Your task to perform on an android device: visit the assistant section in the google photos Image 0: 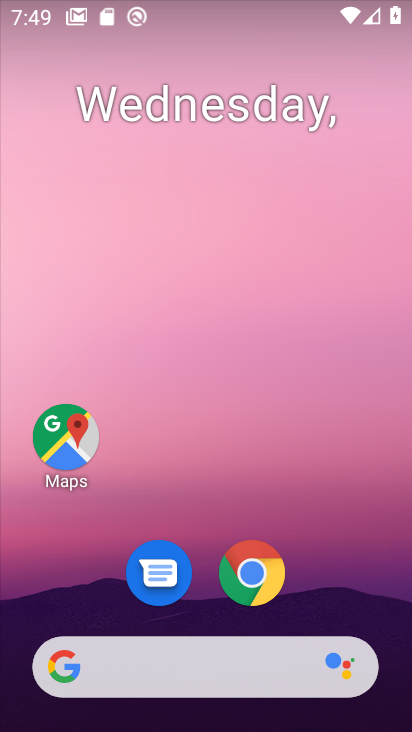
Step 0: drag from (334, 518) to (355, 0)
Your task to perform on an android device: visit the assistant section in the google photos Image 1: 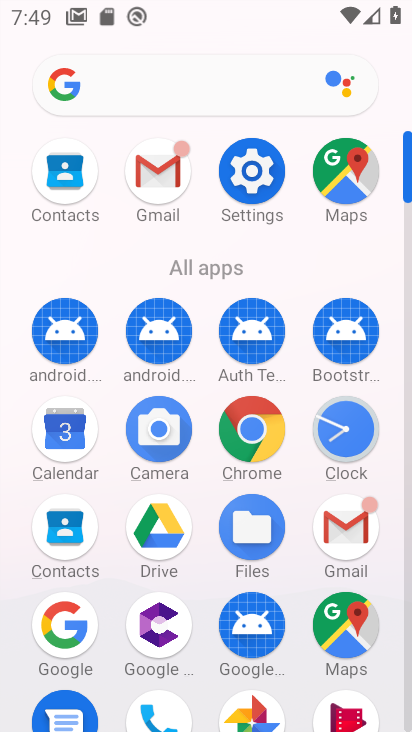
Step 1: click (406, 490)
Your task to perform on an android device: visit the assistant section in the google photos Image 2: 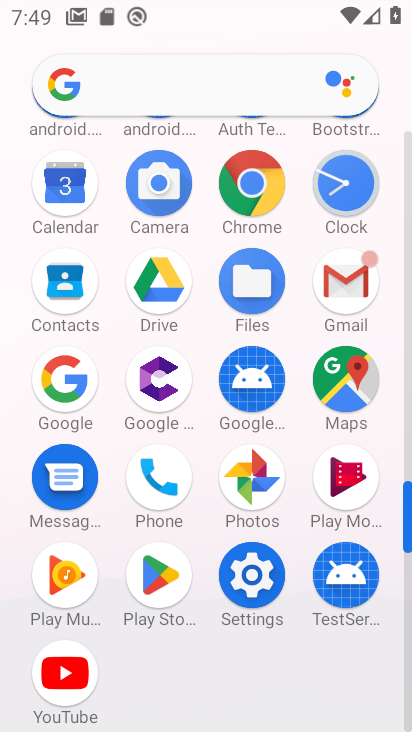
Step 2: click (247, 487)
Your task to perform on an android device: visit the assistant section in the google photos Image 3: 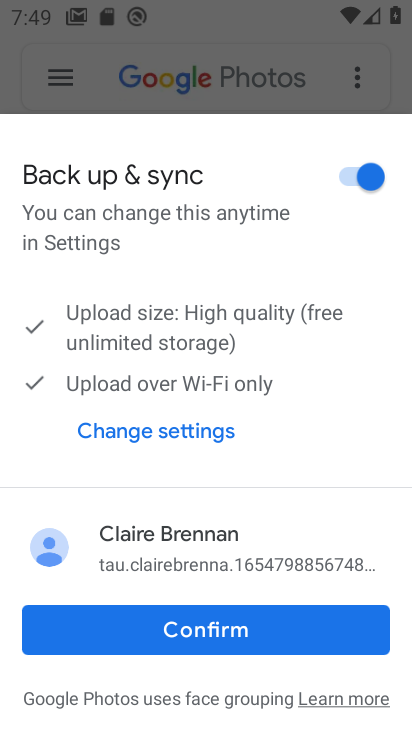
Step 3: click (178, 627)
Your task to perform on an android device: visit the assistant section in the google photos Image 4: 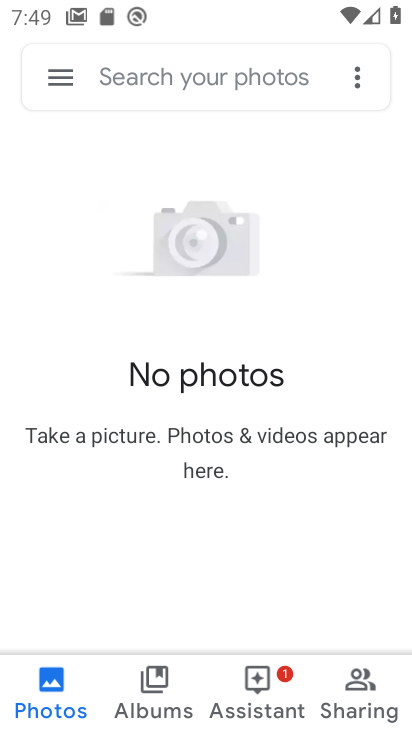
Step 4: click (260, 711)
Your task to perform on an android device: visit the assistant section in the google photos Image 5: 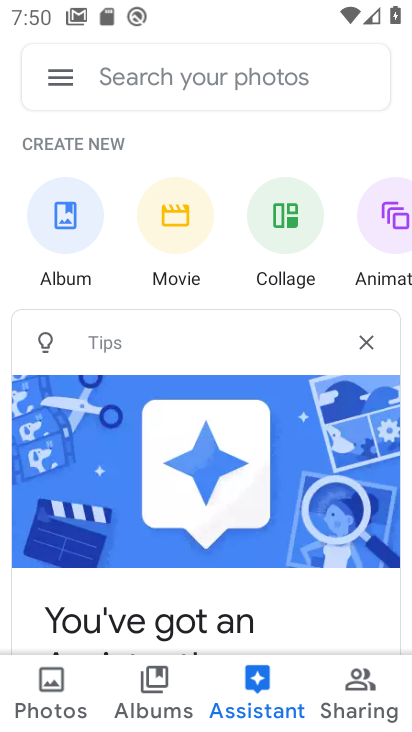
Step 5: task complete